Your task to perform on an android device: turn on data saver in the chrome app Image 0: 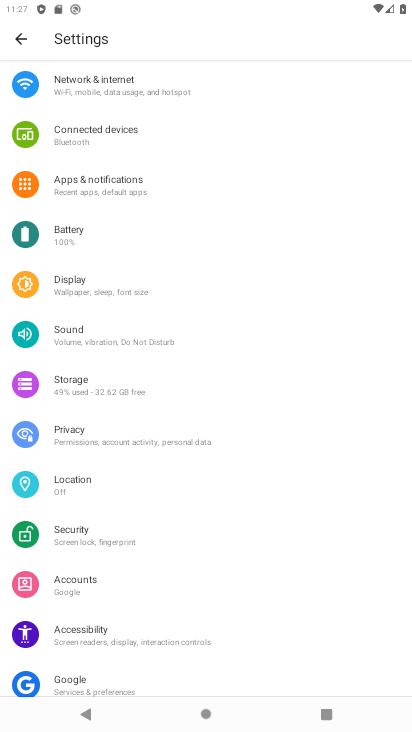
Step 0: press home button
Your task to perform on an android device: turn on data saver in the chrome app Image 1: 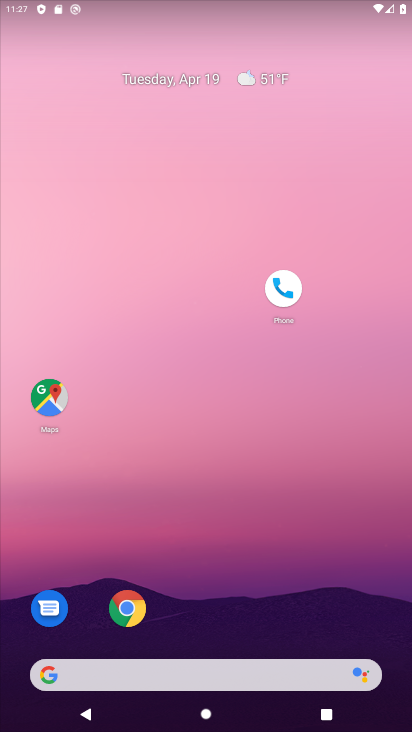
Step 1: click (130, 606)
Your task to perform on an android device: turn on data saver in the chrome app Image 2: 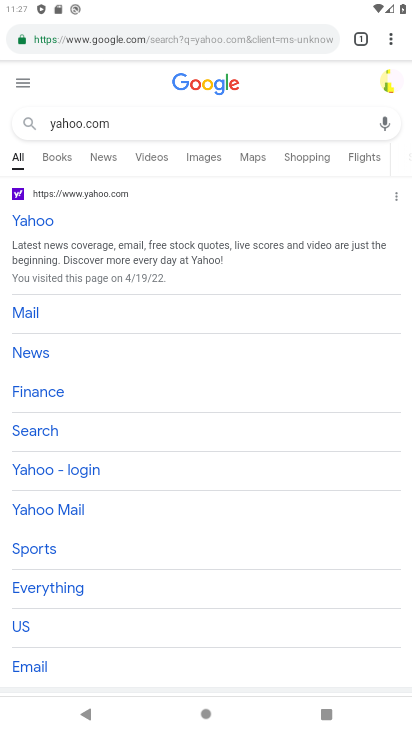
Step 2: click (392, 39)
Your task to perform on an android device: turn on data saver in the chrome app Image 3: 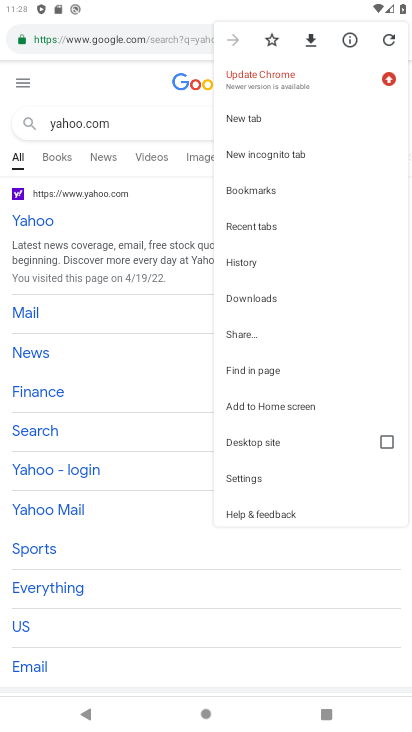
Step 3: click (236, 474)
Your task to perform on an android device: turn on data saver in the chrome app Image 4: 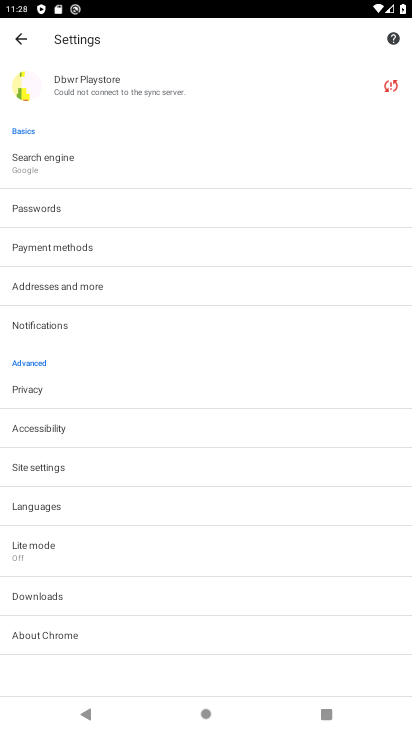
Step 4: click (41, 549)
Your task to perform on an android device: turn on data saver in the chrome app Image 5: 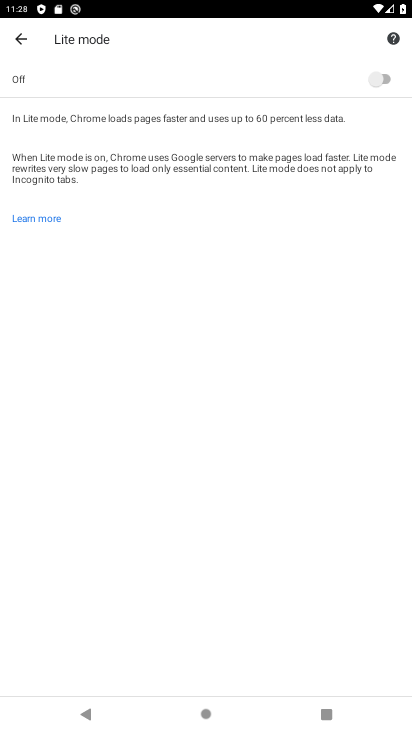
Step 5: click (381, 85)
Your task to perform on an android device: turn on data saver in the chrome app Image 6: 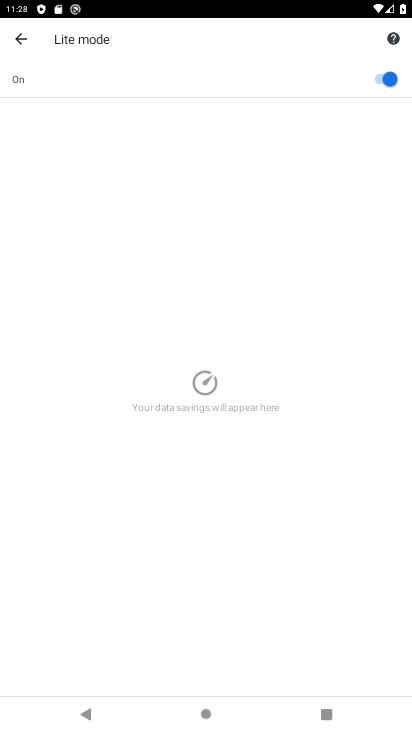
Step 6: task complete